Your task to perform on an android device: Search for Italian restaurants on Maps Image 0: 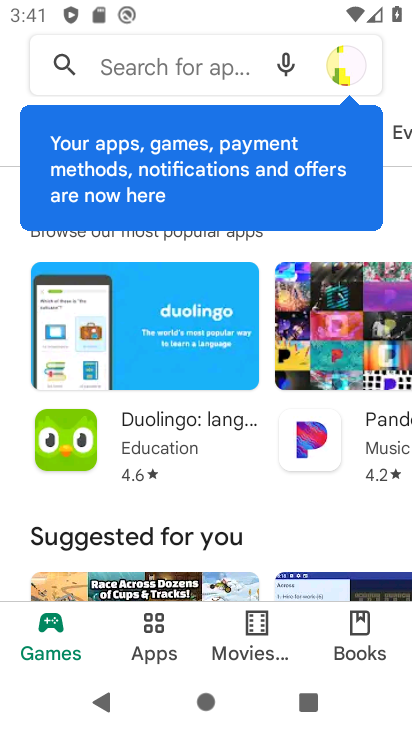
Step 0: press home button
Your task to perform on an android device: Search for Italian restaurants on Maps Image 1: 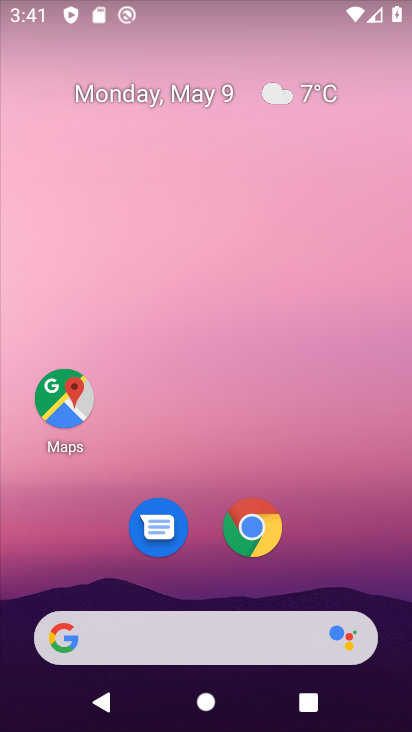
Step 1: click (69, 381)
Your task to perform on an android device: Search for Italian restaurants on Maps Image 2: 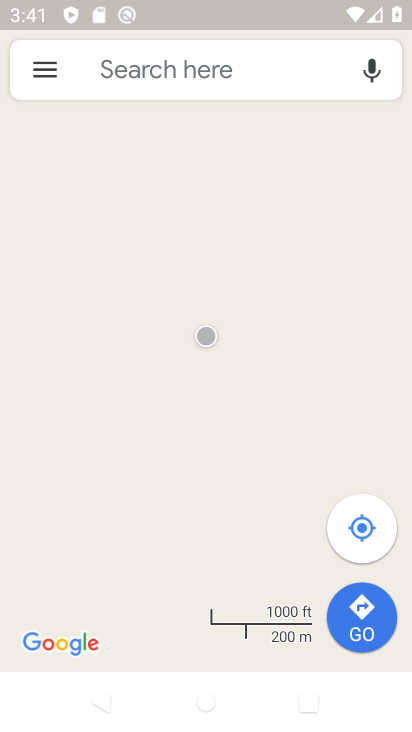
Step 2: click (172, 72)
Your task to perform on an android device: Search for Italian restaurants on Maps Image 3: 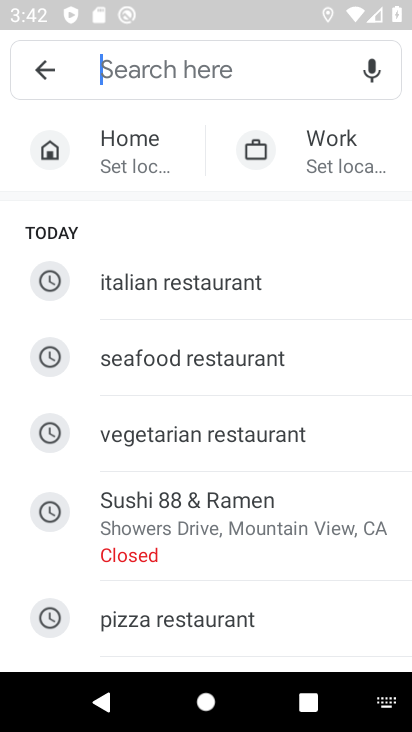
Step 3: click (143, 279)
Your task to perform on an android device: Search for Italian restaurants on Maps Image 4: 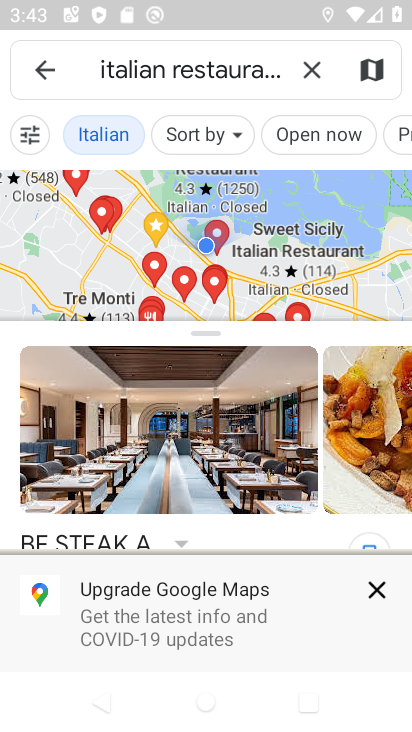
Step 4: task complete